Your task to perform on an android device: turn off improve location accuracy Image 0: 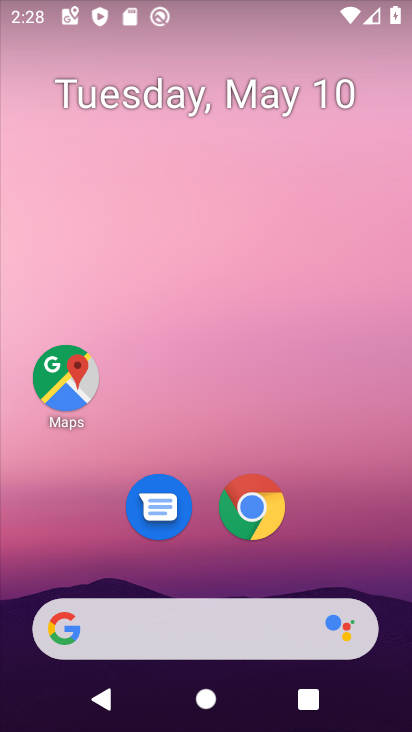
Step 0: drag from (224, 728) to (216, 149)
Your task to perform on an android device: turn off improve location accuracy Image 1: 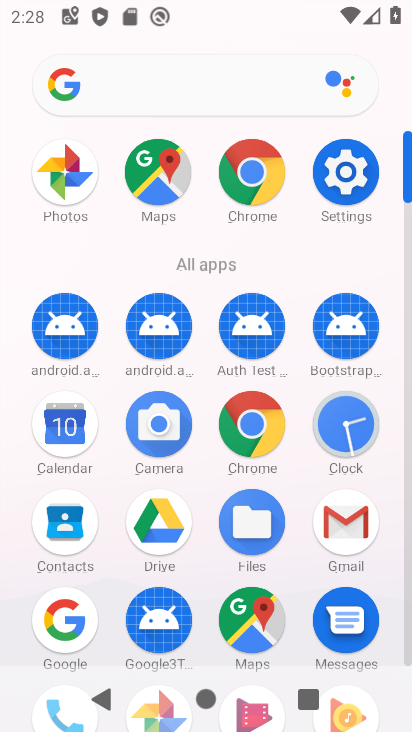
Step 1: click (347, 170)
Your task to perform on an android device: turn off improve location accuracy Image 2: 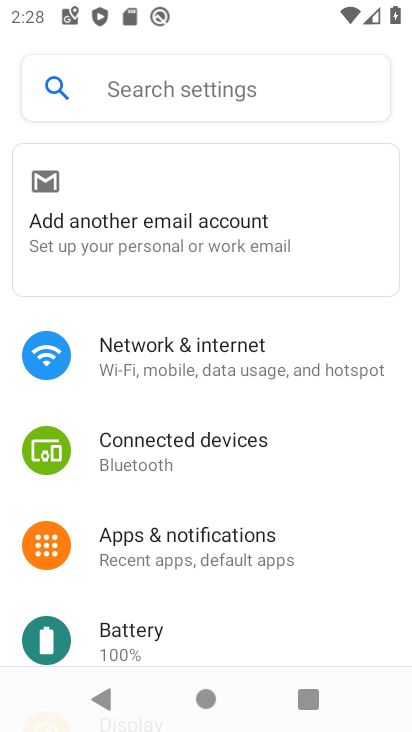
Step 2: drag from (184, 610) to (184, 404)
Your task to perform on an android device: turn off improve location accuracy Image 3: 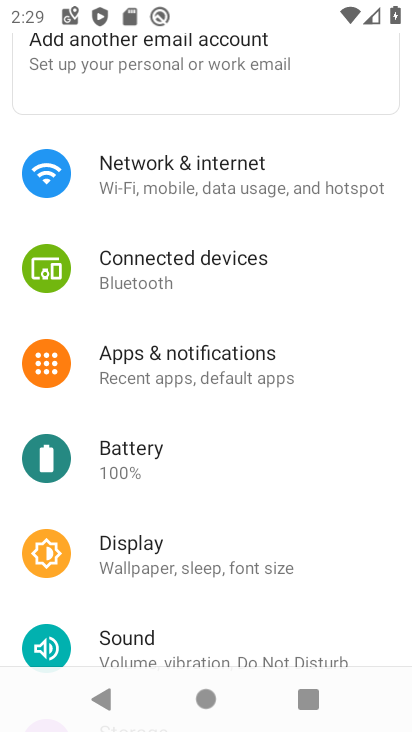
Step 3: drag from (191, 612) to (198, 283)
Your task to perform on an android device: turn off improve location accuracy Image 4: 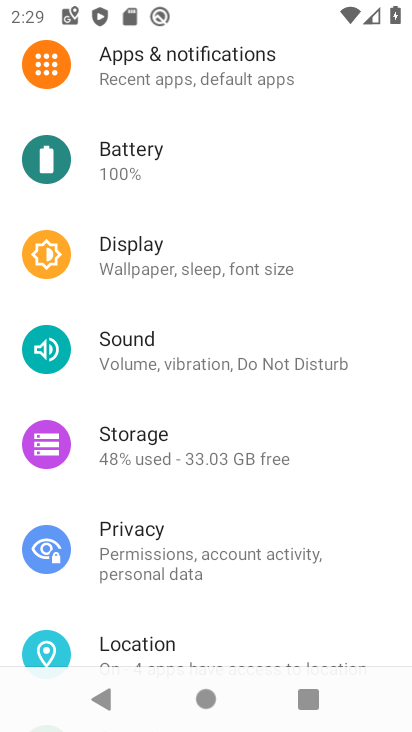
Step 4: drag from (167, 597) to (174, 363)
Your task to perform on an android device: turn off improve location accuracy Image 5: 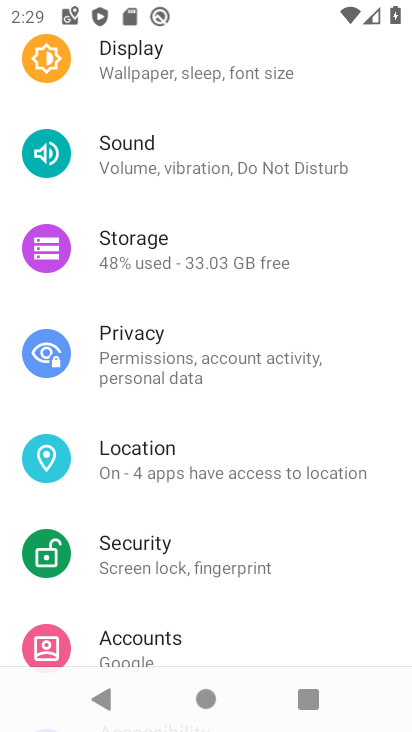
Step 5: click (166, 467)
Your task to perform on an android device: turn off improve location accuracy Image 6: 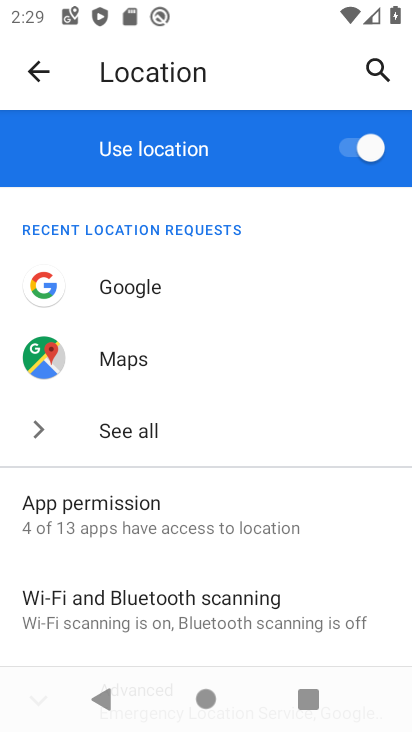
Step 6: drag from (176, 579) to (209, 157)
Your task to perform on an android device: turn off improve location accuracy Image 7: 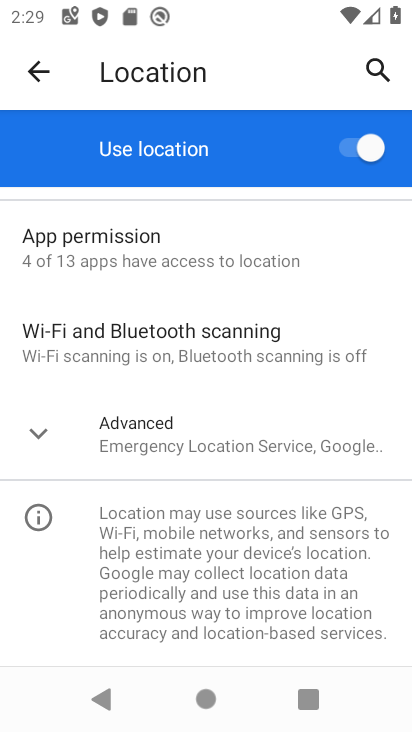
Step 7: click (156, 440)
Your task to perform on an android device: turn off improve location accuracy Image 8: 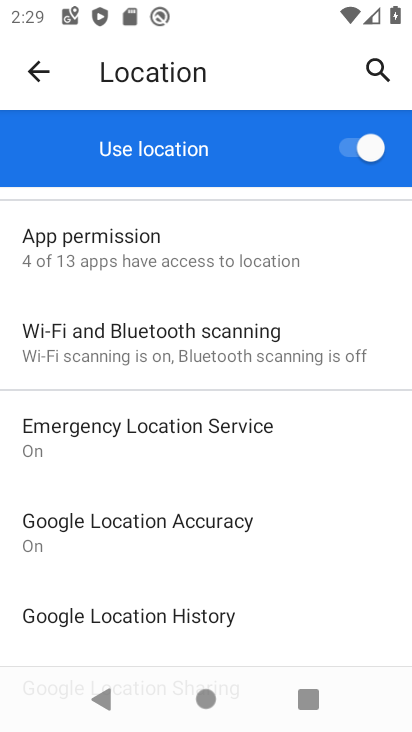
Step 8: drag from (168, 585) to (180, 383)
Your task to perform on an android device: turn off improve location accuracy Image 9: 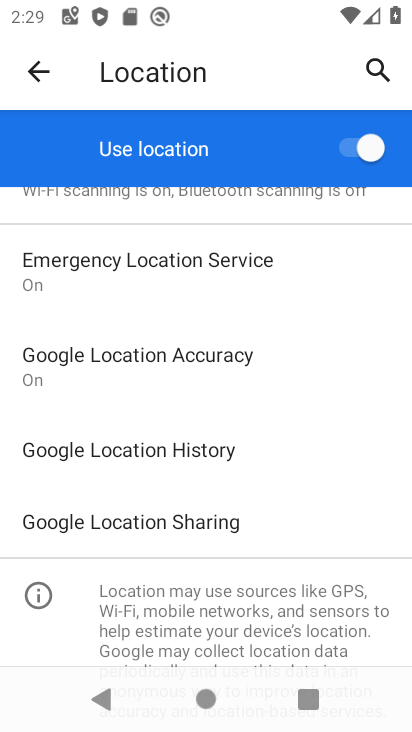
Step 9: drag from (159, 595) to (159, 418)
Your task to perform on an android device: turn off improve location accuracy Image 10: 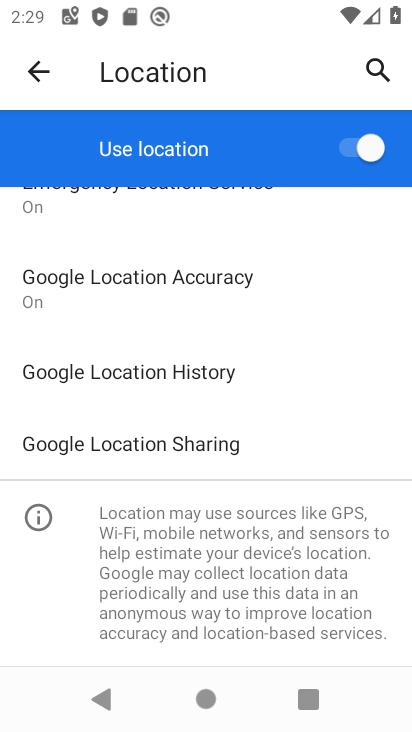
Step 10: click (119, 281)
Your task to perform on an android device: turn off improve location accuracy Image 11: 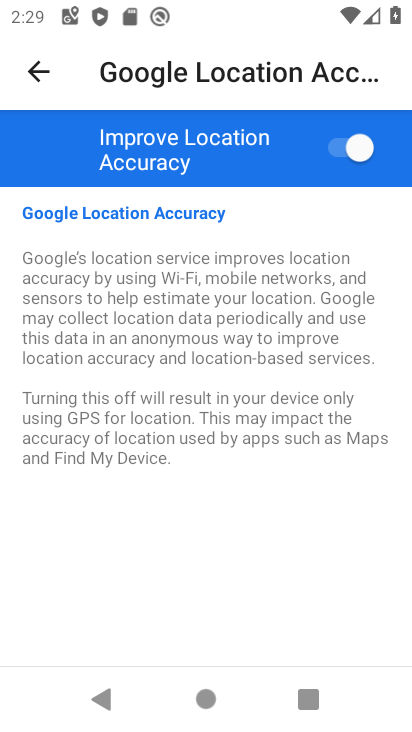
Step 11: click (337, 149)
Your task to perform on an android device: turn off improve location accuracy Image 12: 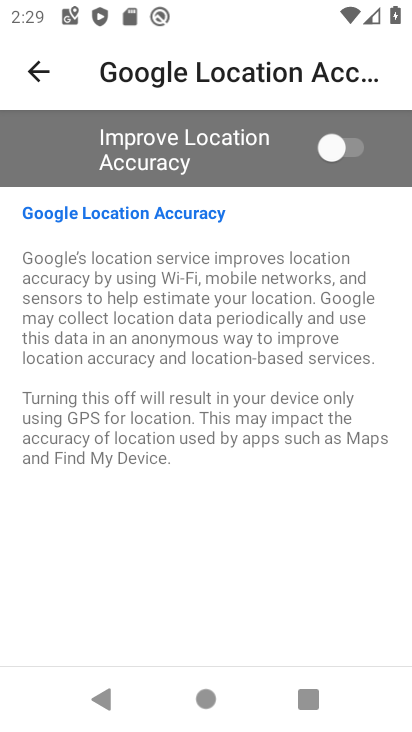
Step 12: task complete